Your task to perform on an android device: turn off translation in the chrome app Image 0: 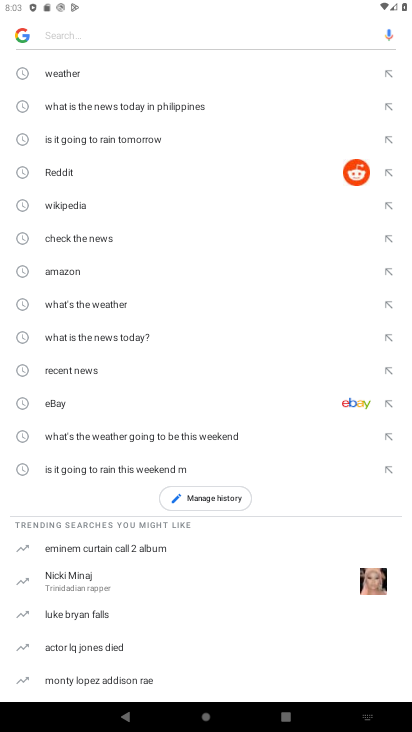
Step 0: press back button
Your task to perform on an android device: turn off translation in the chrome app Image 1: 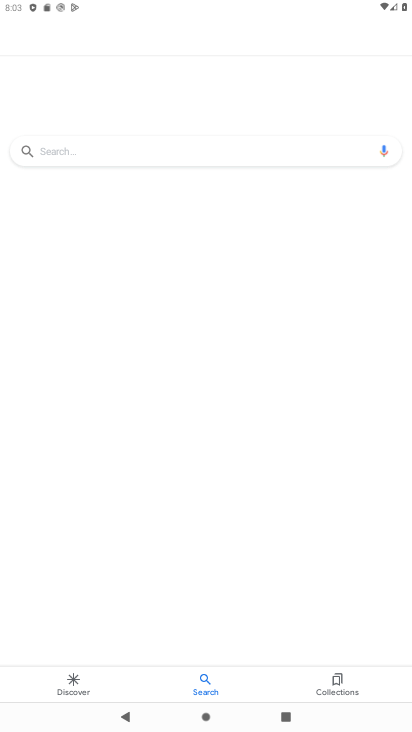
Step 1: press back button
Your task to perform on an android device: turn off translation in the chrome app Image 2: 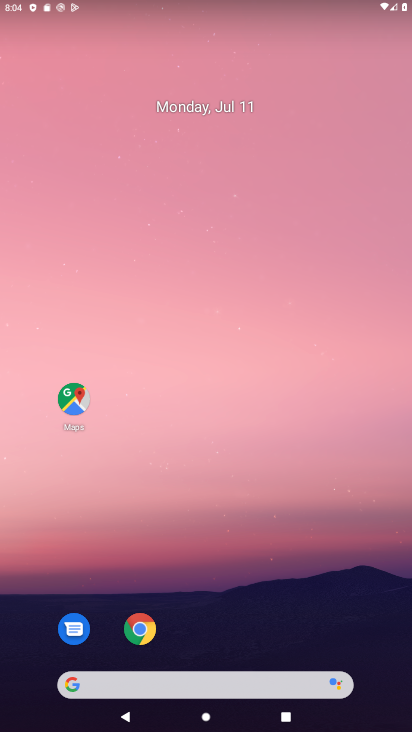
Step 2: drag from (177, 675) to (226, 120)
Your task to perform on an android device: turn off translation in the chrome app Image 3: 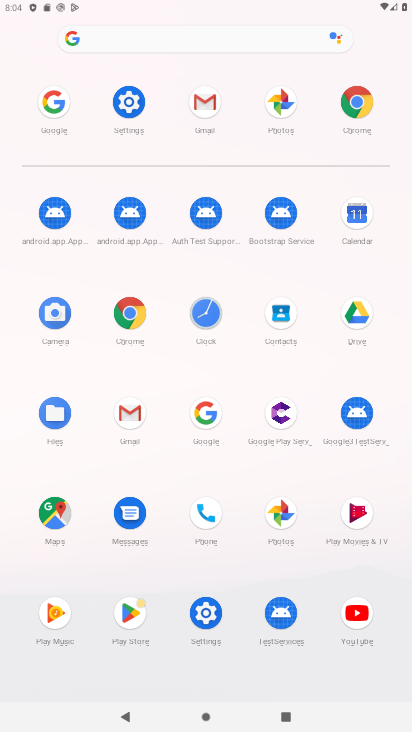
Step 3: click (125, 308)
Your task to perform on an android device: turn off translation in the chrome app Image 4: 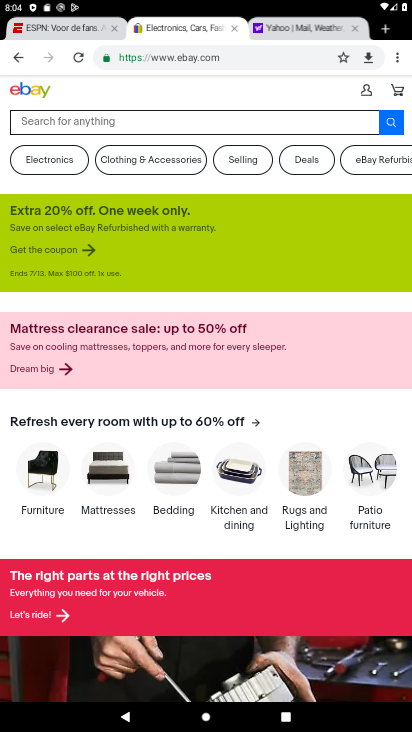
Step 4: click (398, 57)
Your task to perform on an android device: turn off translation in the chrome app Image 5: 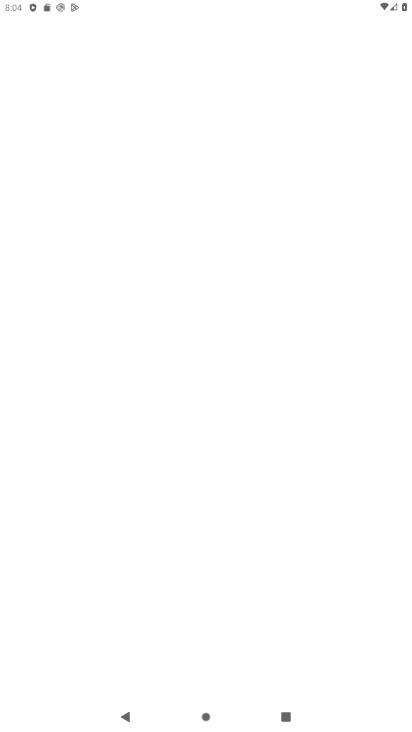
Step 5: drag from (391, 55) to (254, 410)
Your task to perform on an android device: turn off translation in the chrome app Image 6: 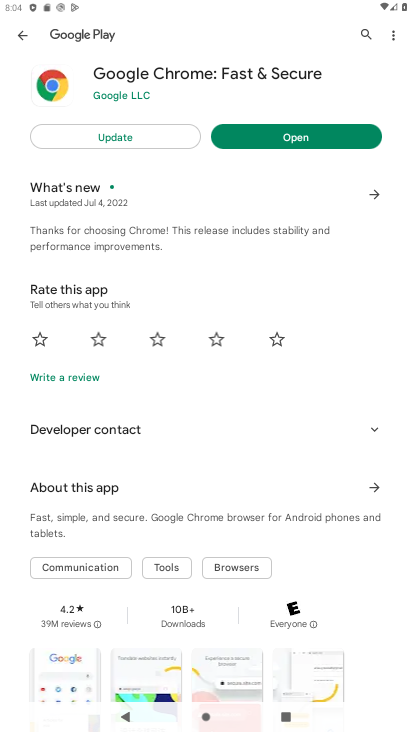
Step 6: click (19, 28)
Your task to perform on an android device: turn off translation in the chrome app Image 7: 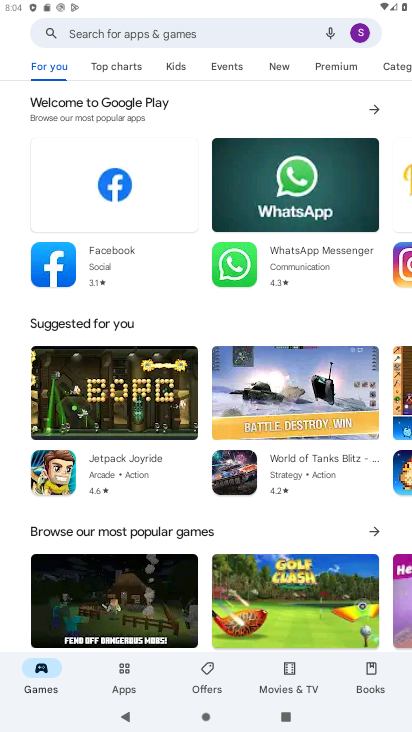
Step 7: press back button
Your task to perform on an android device: turn off translation in the chrome app Image 8: 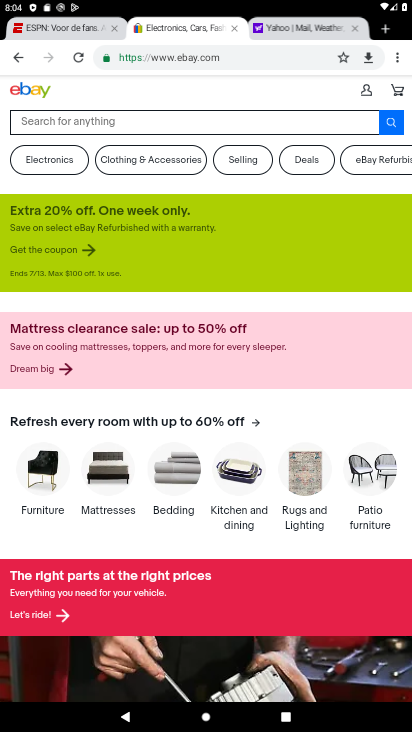
Step 8: drag from (395, 55) to (280, 418)
Your task to perform on an android device: turn off translation in the chrome app Image 9: 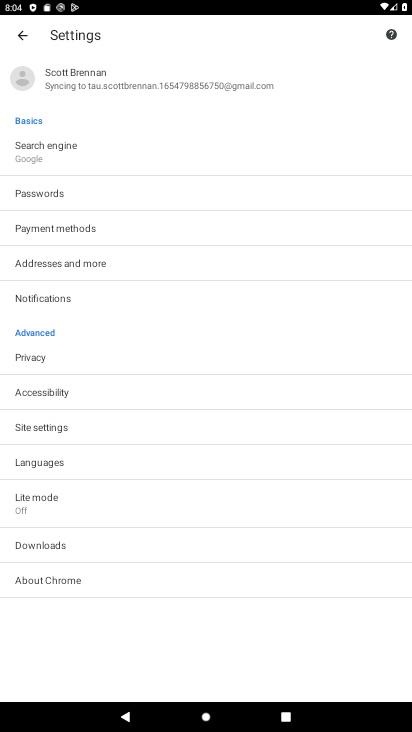
Step 9: click (72, 460)
Your task to perform on an android device: turn off translation in the chrome app Image 10: 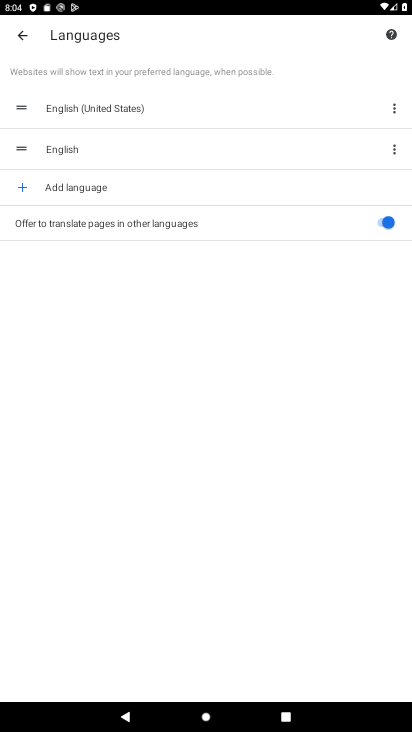
Step 10: click (388, 218)
Your task to perform on an android device: turn off translation in the chrome app Image 11: 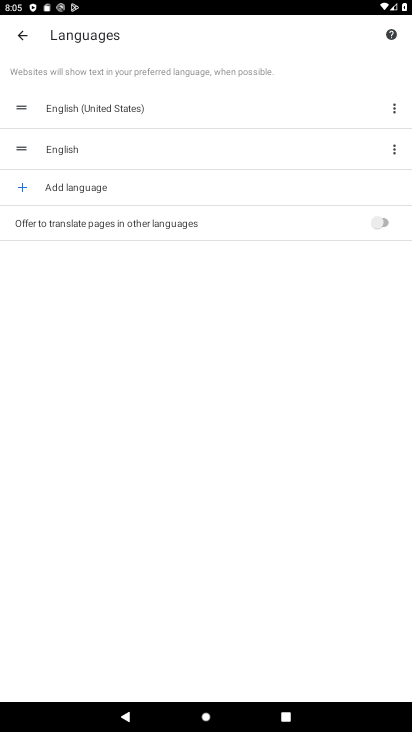
Step 11: task complete